Your task to perform on an android device: Is it going to rain today? Image 0: 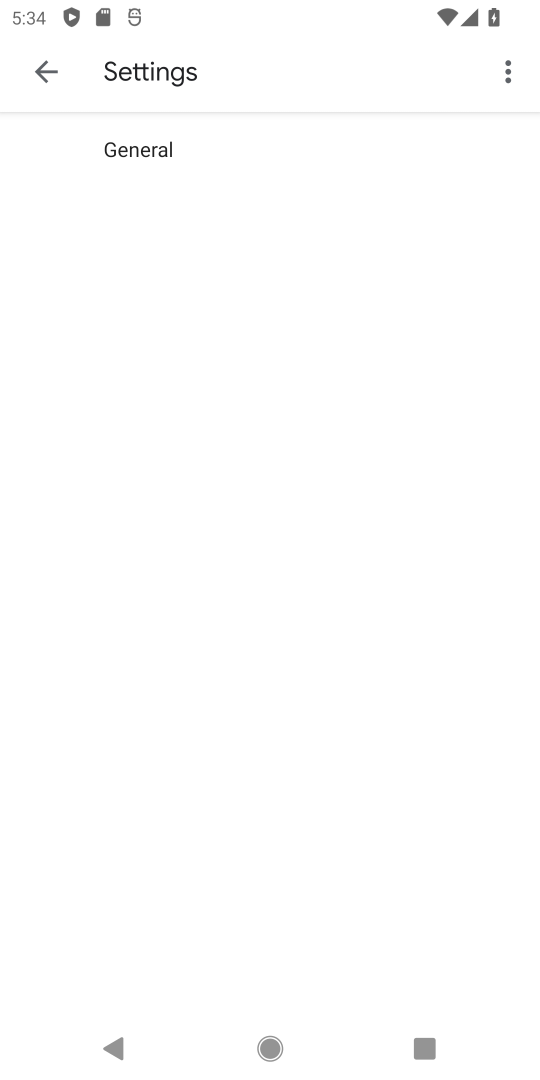
Step 0: press home button
Your task to perform on an android device: Is it going to rain today? Image 1: 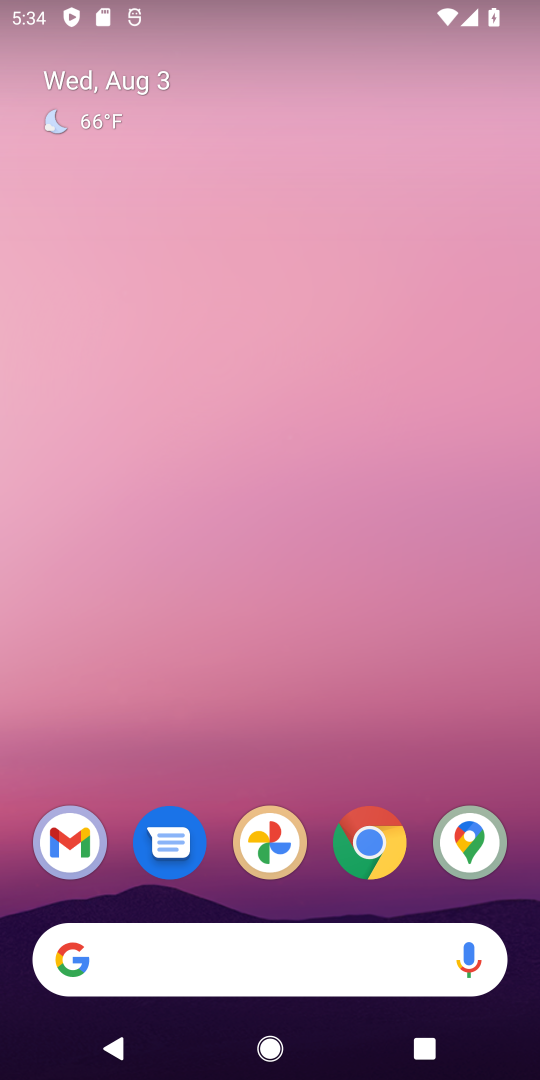
Step 1: click (326, 960)
Your task to perform on an android device: Is it going to rain today? Image 2: 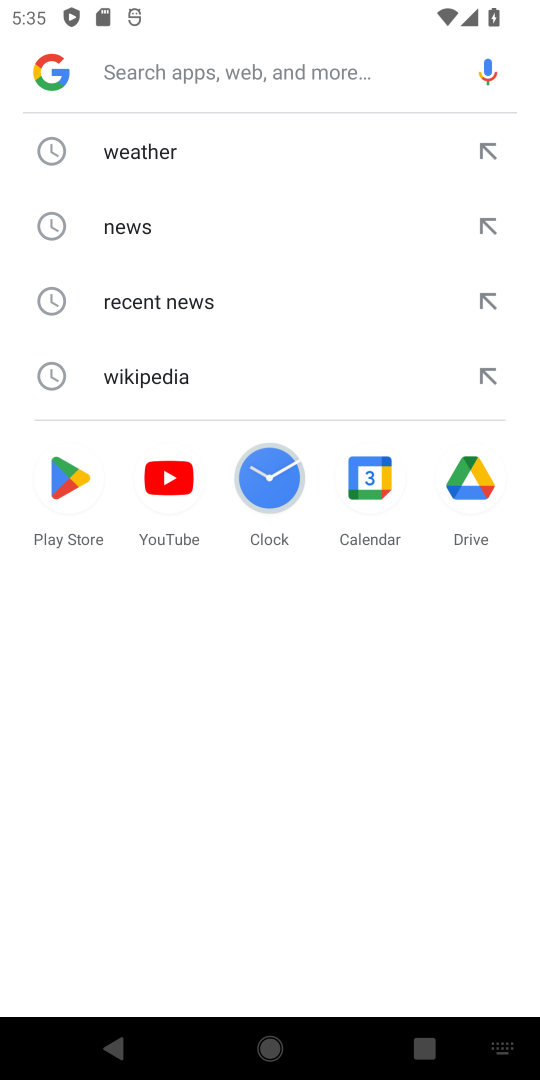
Step 2: type "Is it going to rain today?"
Your task to perform on an android device: Is it going to rain today? Image 3: 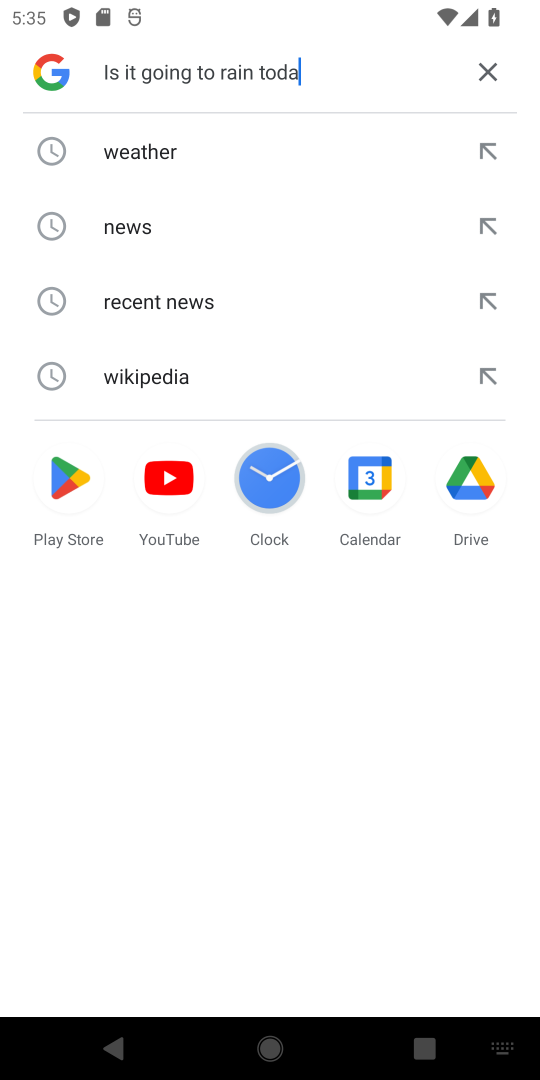
Step 3: type ""
Your task to perform on an android device: Is it going to rain today? Image 4: 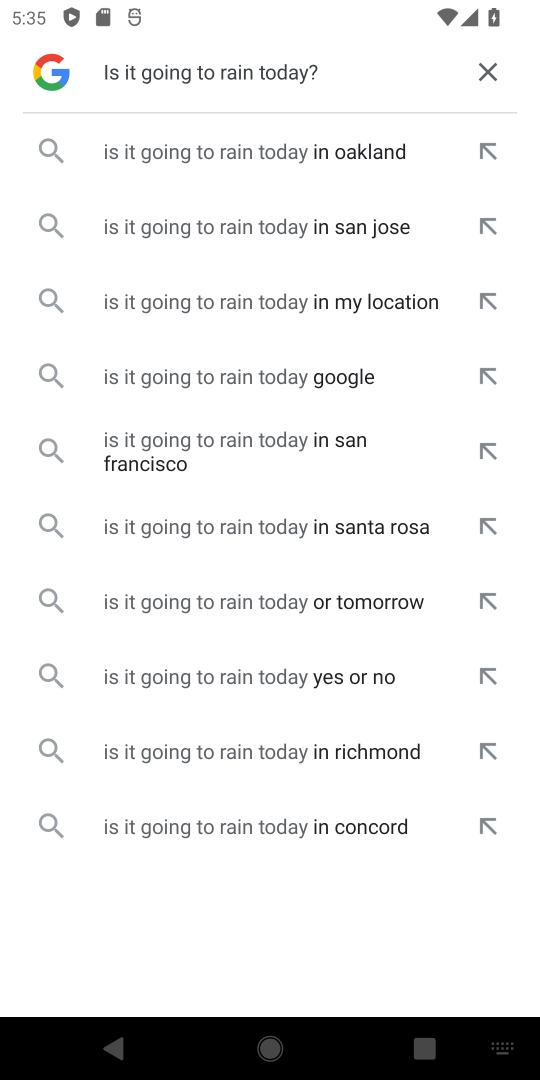
Step 4: press enter
Your task to perform on an android device: Is it going to rain today? Image 5: 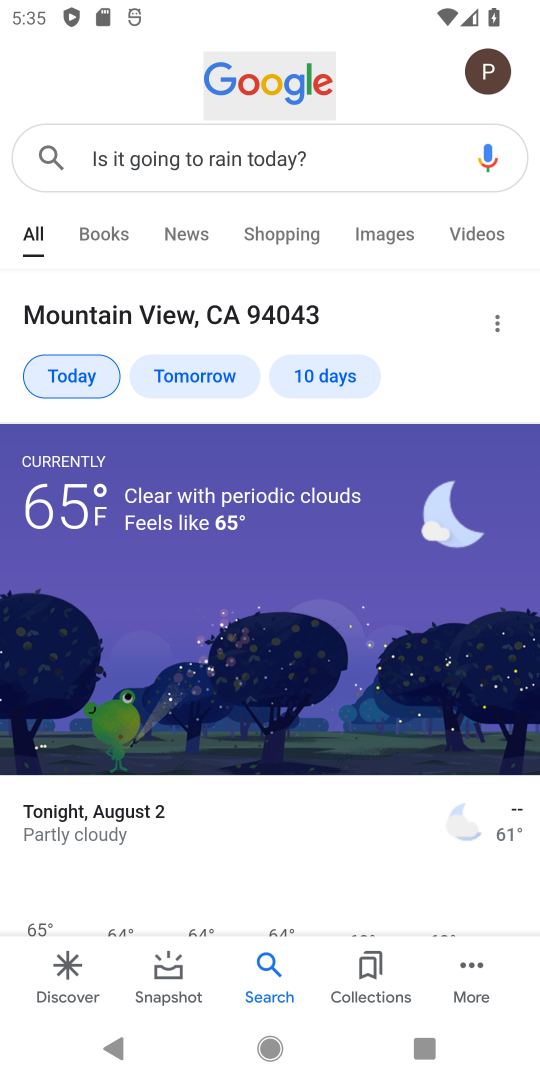
Step 5: task complete